Your task to perform on an android device: Open network settings Image 0: 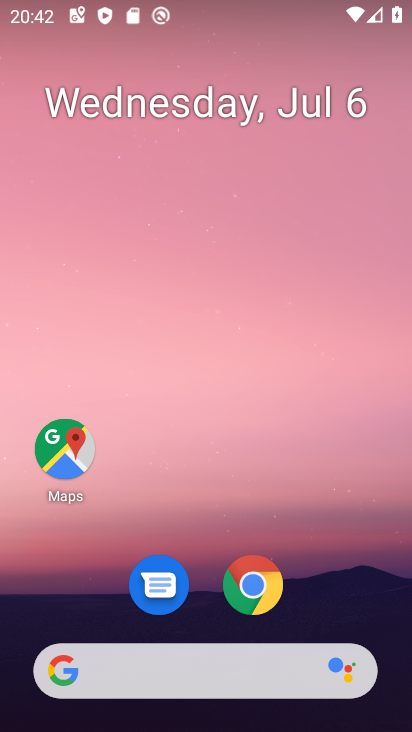
Step 0: drag from (327, 440) to (285, 0)
Your task to perform on an android device: Open network settings Image 1: 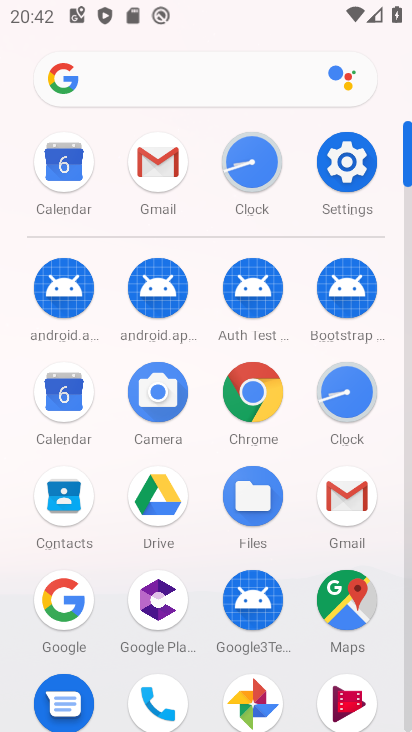
Step 1: click (352, 165)
Your task to perform on an android device: Open network settings Image 2: 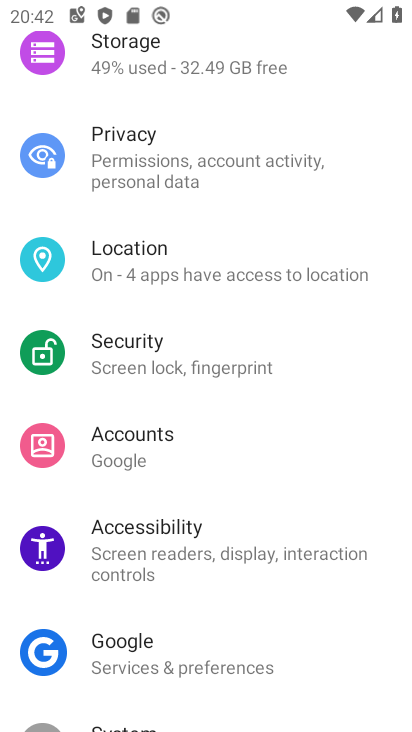
Step 2: drag from (222, 138) to (230, 636)
Your task to perform on an android device: Open network settings Image 3: 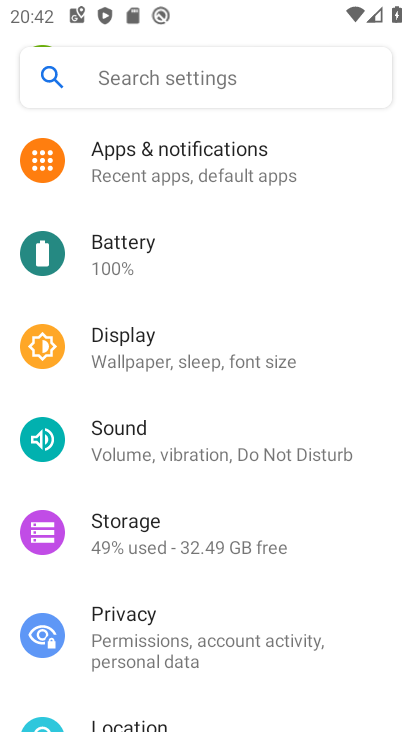
Step 3: drag from (204, 285) to (212, 585)
Your task to perform on an android device: Open network settings Image 4: 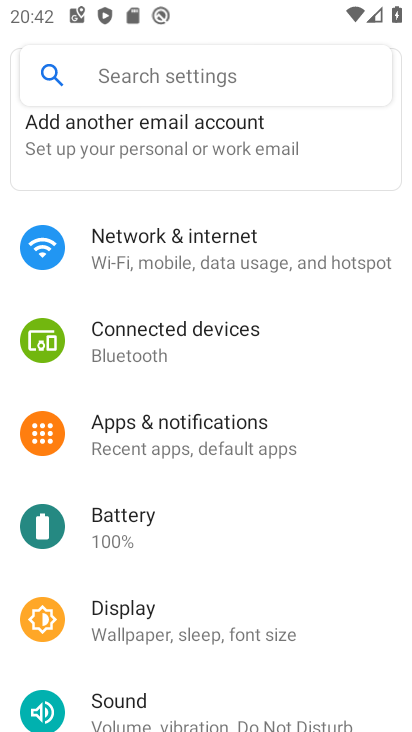
Step 4: click (203, 256)
Your task to perform on an android device: Open network settings Image 5: 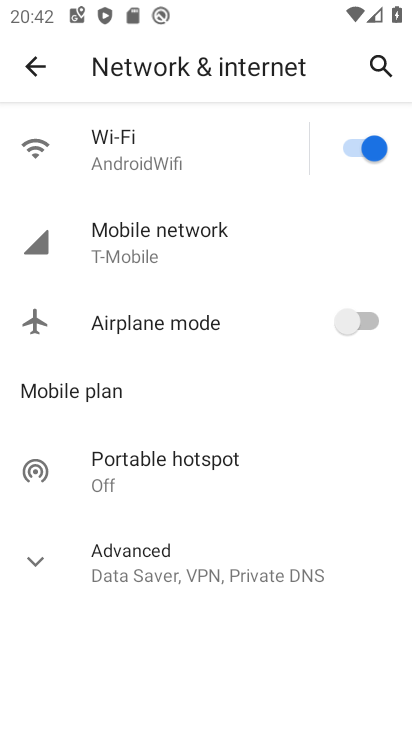
Step 5: task complete